Your task to perform on an android device: turn on translation in the chrome app Image 0: 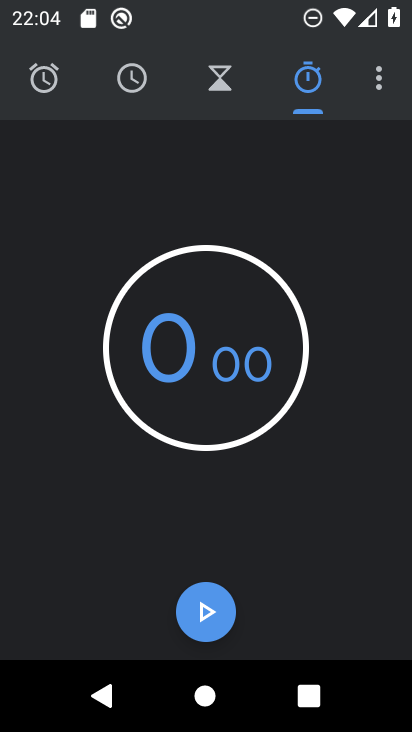
Step 0: press home button
Your task to perform on an android device: turn on translation in the chrome app Image 1: 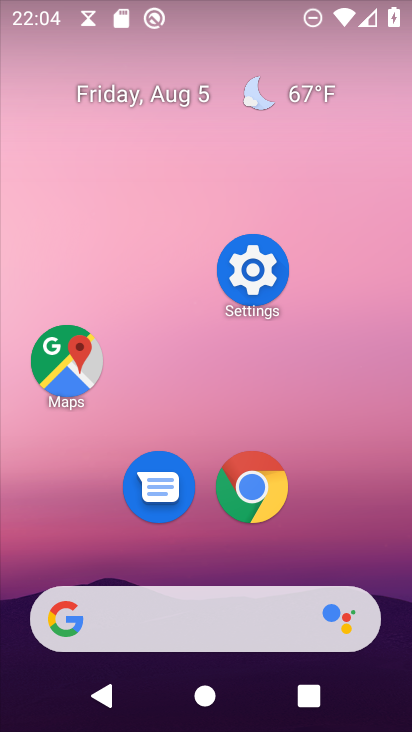
Step 1: click (258, 491)
Your task to perform on an android device: turn on translation in the chrome app Image 2: 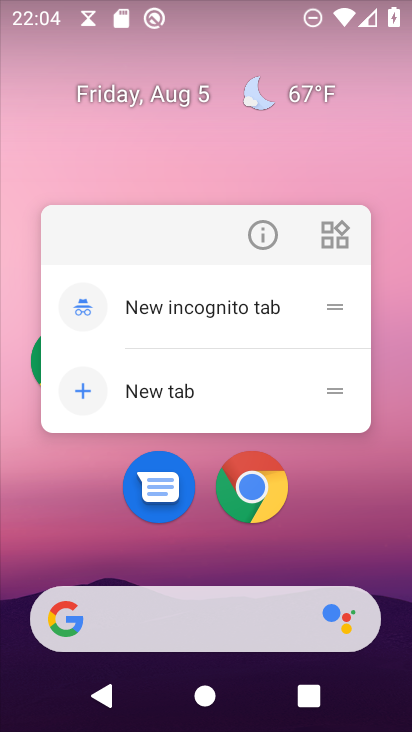
Step 2: click (258, 491)
Your task to perform on an android device: turn on translation in the chrome app Image 3: 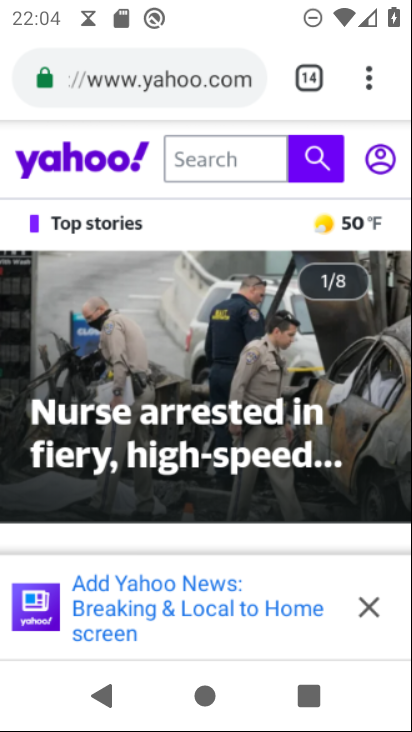
Step 3: click (258, 494)
Your task to perform on an android device: turn on translation in the chrome app Image 4: 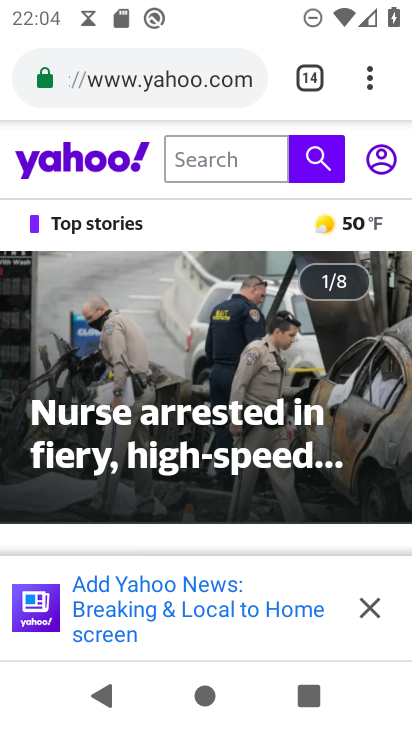
Step 4: drag from (365, 74) to (194, 550)
Your task to perform on an android device: turn on translation in the chrome app Image 5: 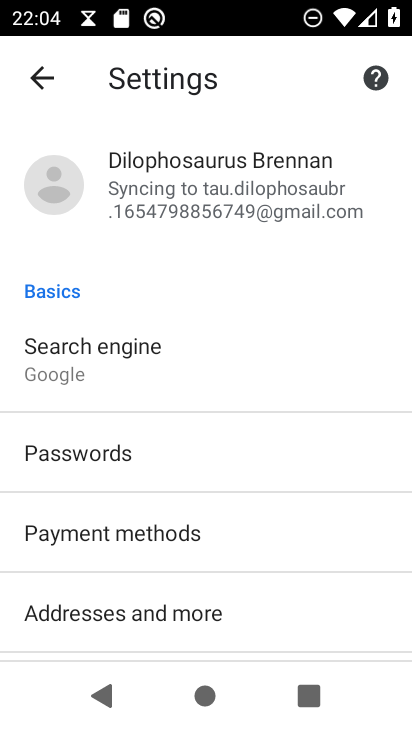
Step 5: drag from (221, 575) to (312, 250)
Your task to perform on an android device: turn on translation in the chrome app Image 6: 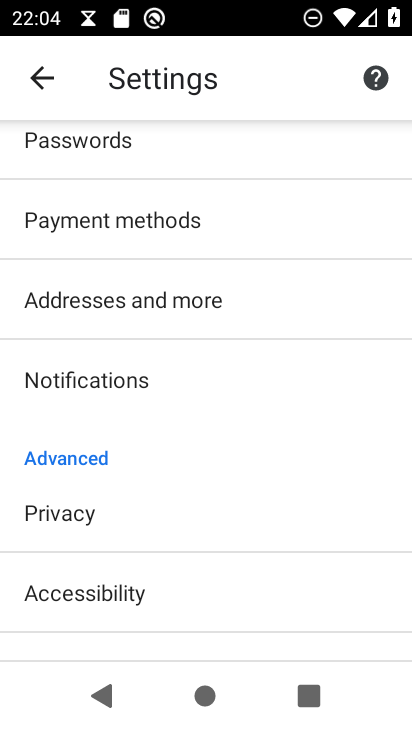
Step 6: drag from (249, 611) to (299, 102)
Your task to perform on an android device: turn on translation in the chrome app Image 7: 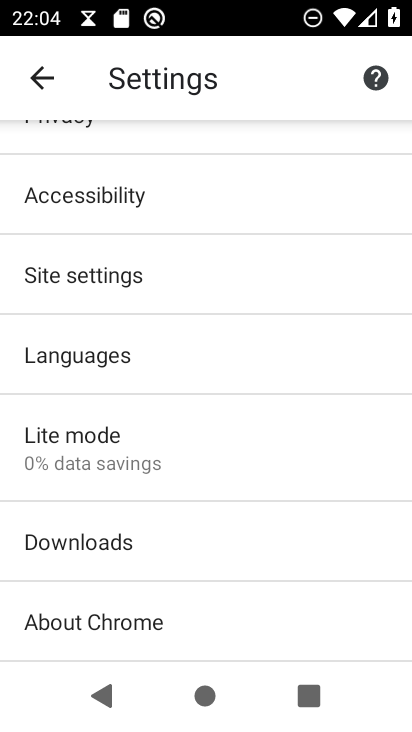
Step 7: click (90, 342)
Your task to perform on an android device: turn on translation in the chrome app Image 8: 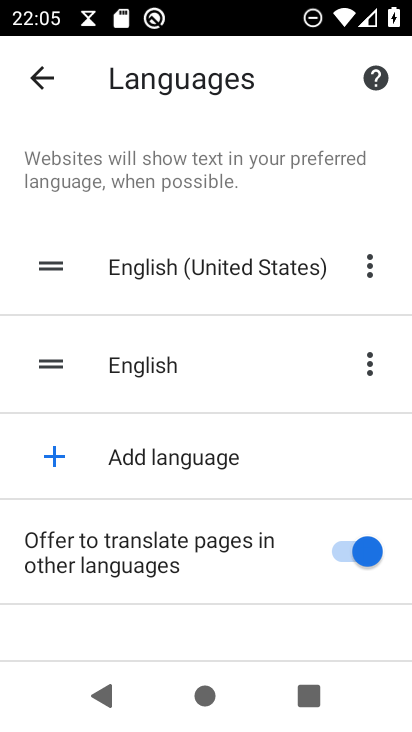
Step 8: task complete